Your task to perform on an android device: Go to network settings Image 0: 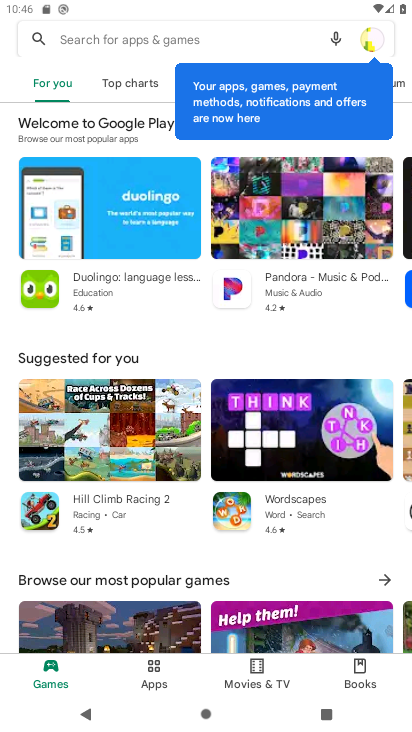
Step 0: press home button
Your task to perform on an android device: Go to network settings Image 1: 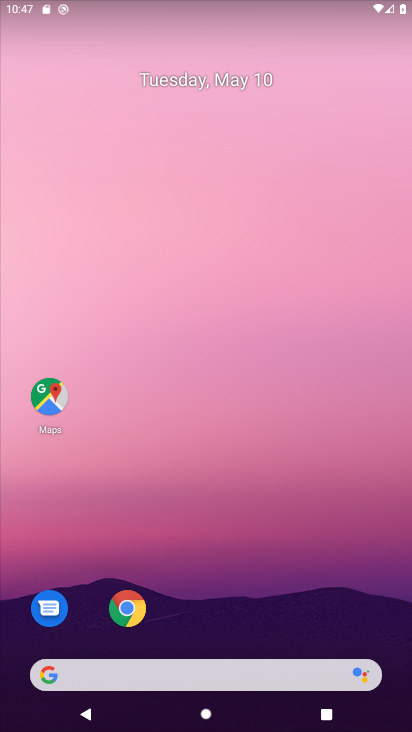
Step 1: drag from (218, 673) to (247, 156)
Your task to perform on an android device: Go to network settings Image 2: 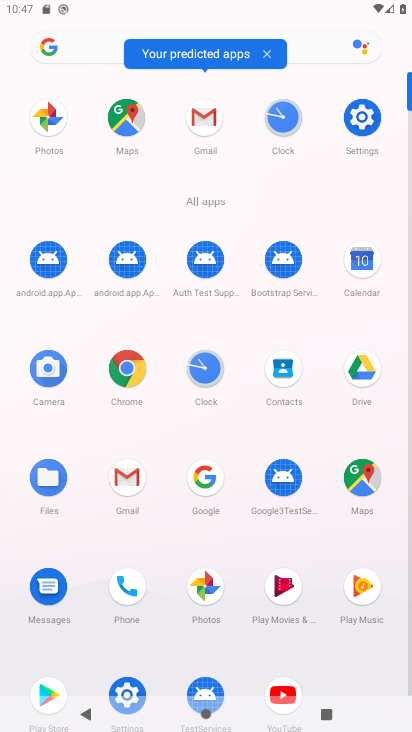
Step 2: click (359, 130)
Your task to perform on an android device: Go to network settings Image 3: 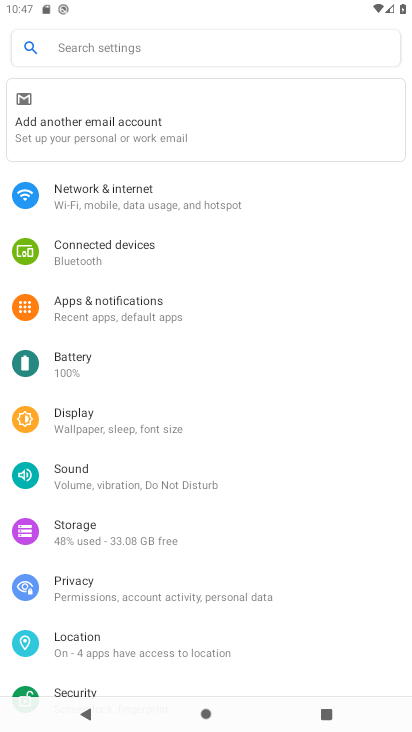
Step 3: click (144, 199)
Your task to perform on an android device: Go to network settings Image 4: 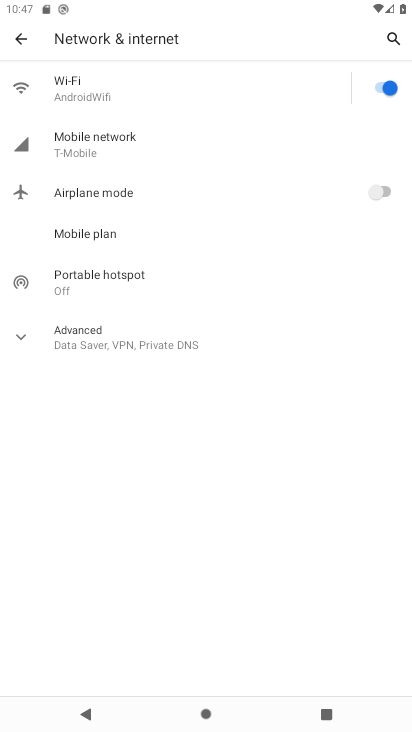
Step 4: task complete